Your task to perform on an android device: clear all cookies in the chrome app Image 0: 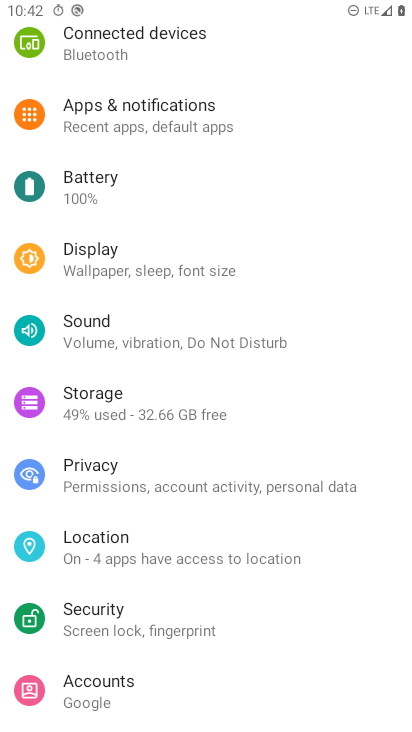
Step 0: drag from (251, 43) to (287, 517)
Your task to perform on an android device: clear all cookies in the chrome app Image 1: 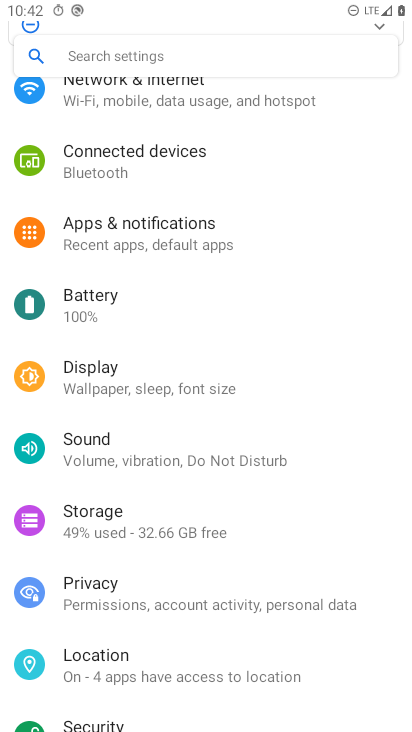
Step 1: drag from (238, 125) to (263, 543)
Your task to perform on an android device: clear all cookies in the chrome app Image 2: 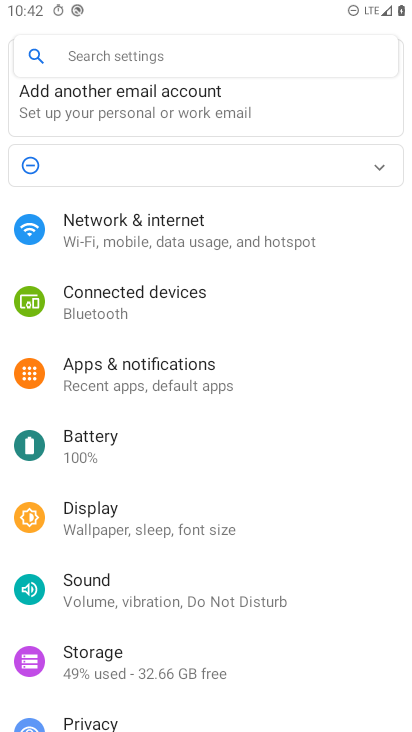
Step 2: press home button
Your task to perform on an android device: clear all cookies in the chrome app Image 3: 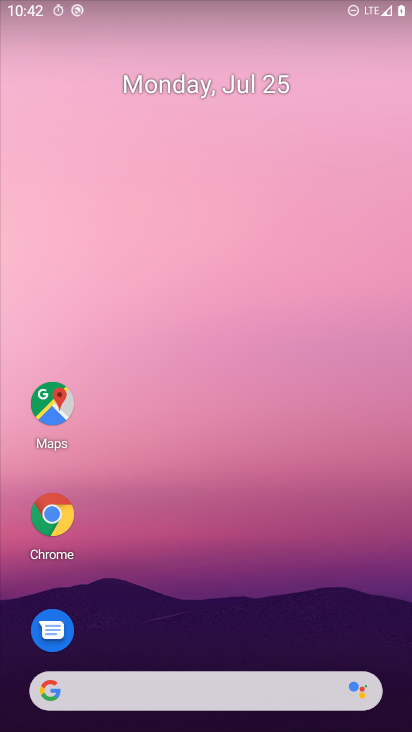
Step 3: click (59, 532)
Your task to perform on an android device: clear all cookies in the chrome app Image 4: 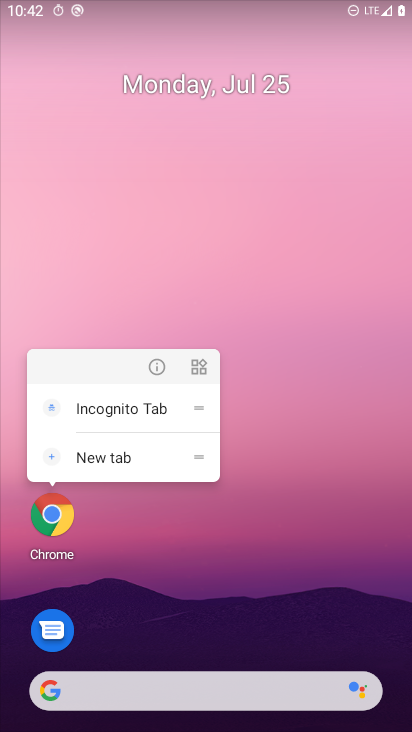
Step 4: click (54, 518)
Your task to perform on an android device: clear all cookies in the chrome app Image 5: 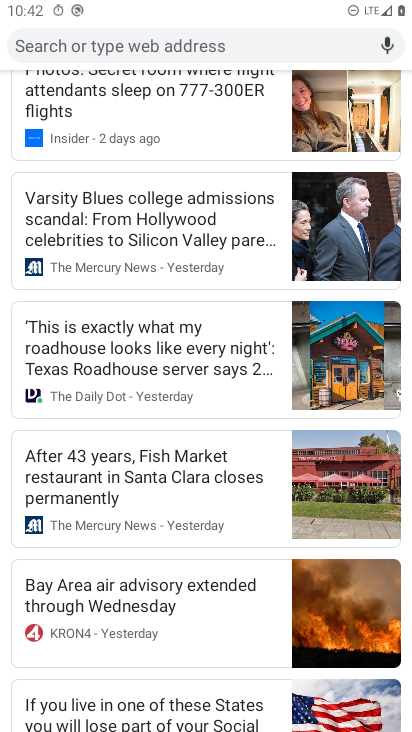
Step 5: click (114, 54)
Your task to perform on an android device: clear all cookies in the chrome app Image 6: 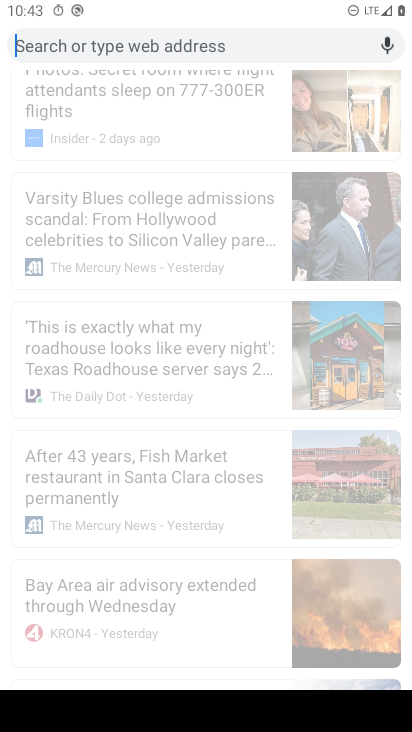
Step 6: task complete